Your task to perform on an android device: turn on data saver in the chrome app Image 0: 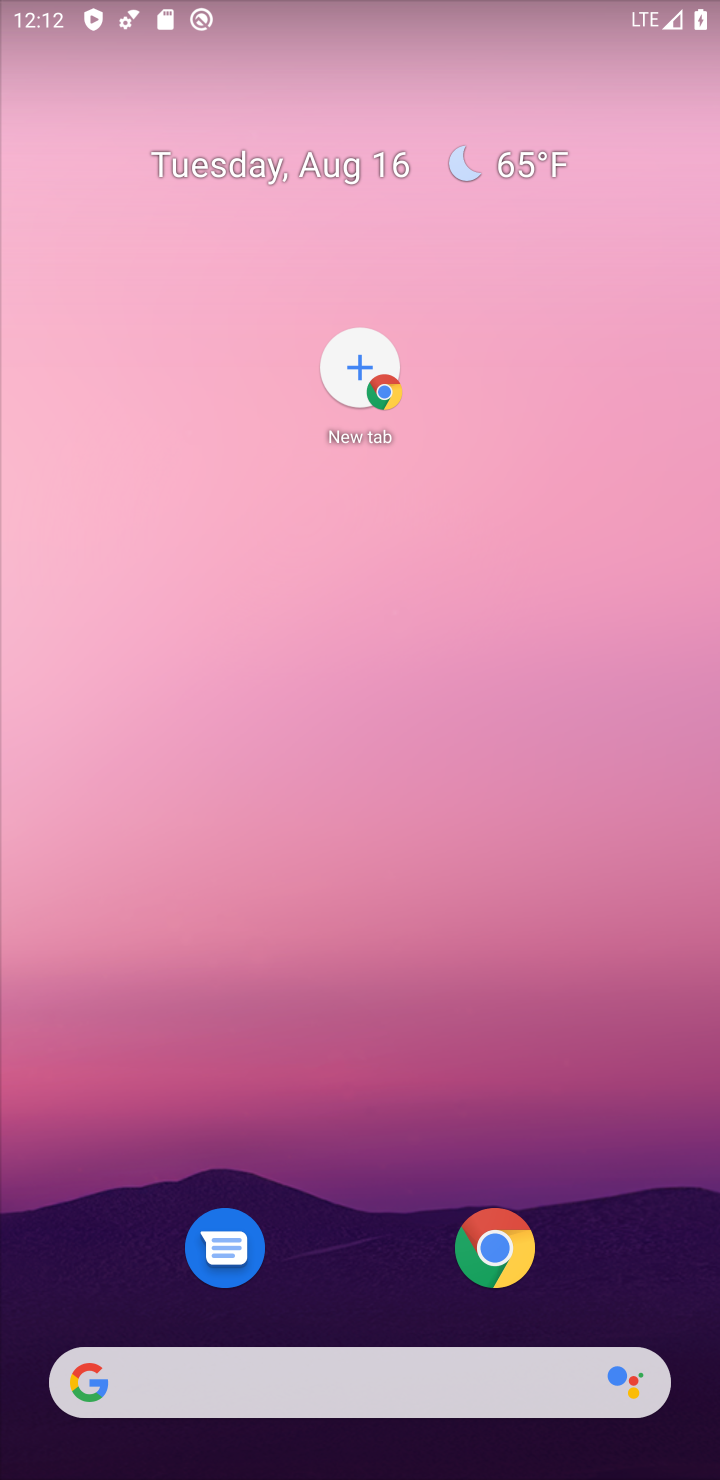
Step 0: click (511, 1261)
Your task to perform on an android device: turn on data saver in the chrome app Image 1: 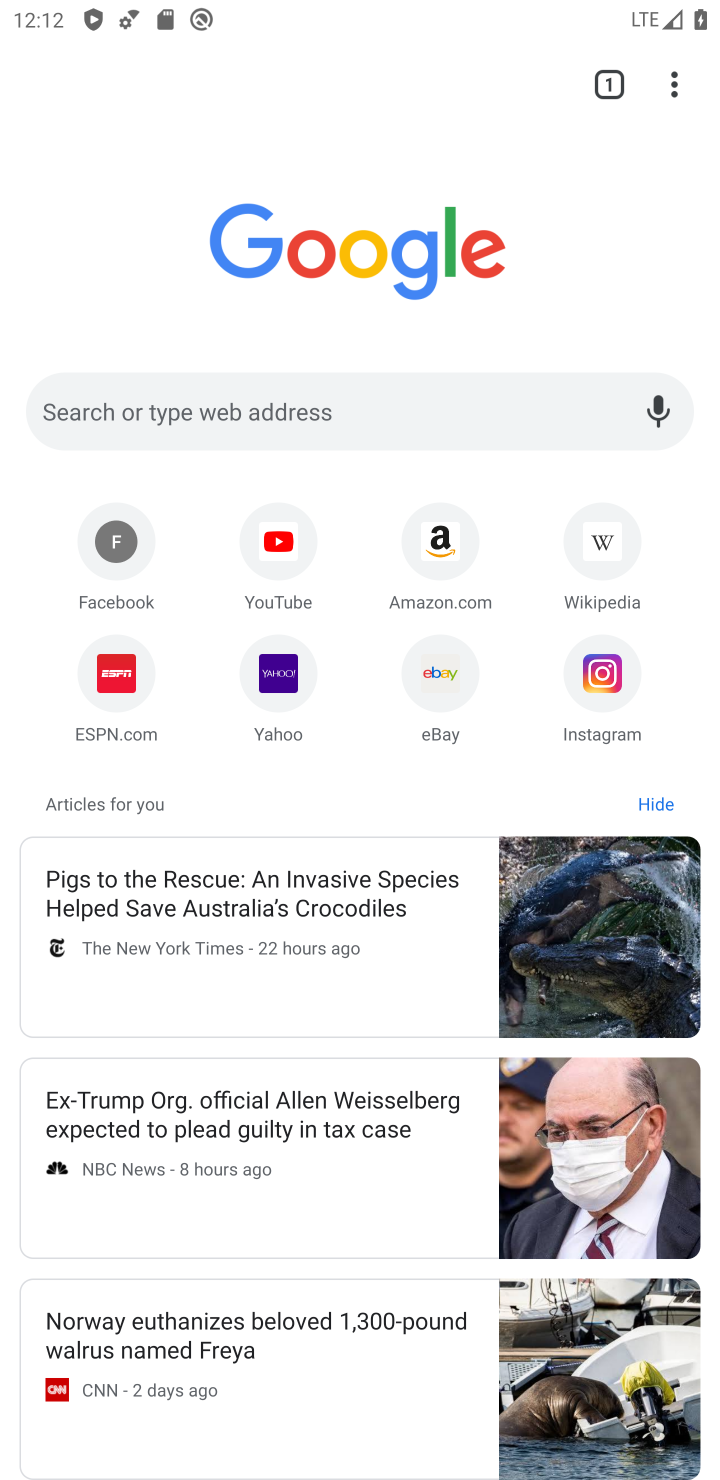
Step 1: click (677, 72)
Your task to perform on an android device: turn on data saver in the chrome app Image 2: 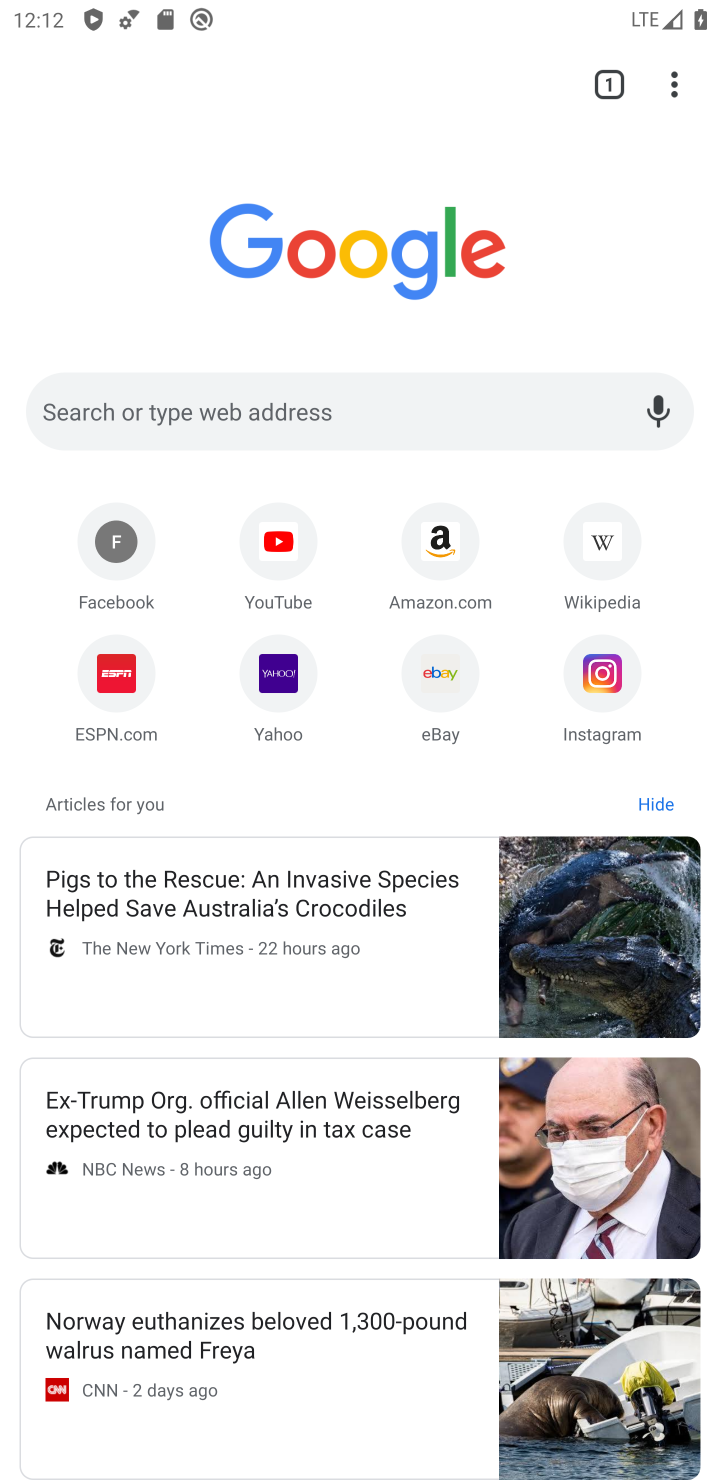
Step 2: click (677, 101)
Your task to perform on an android device: turn on data saver in the chrome app Image 3: 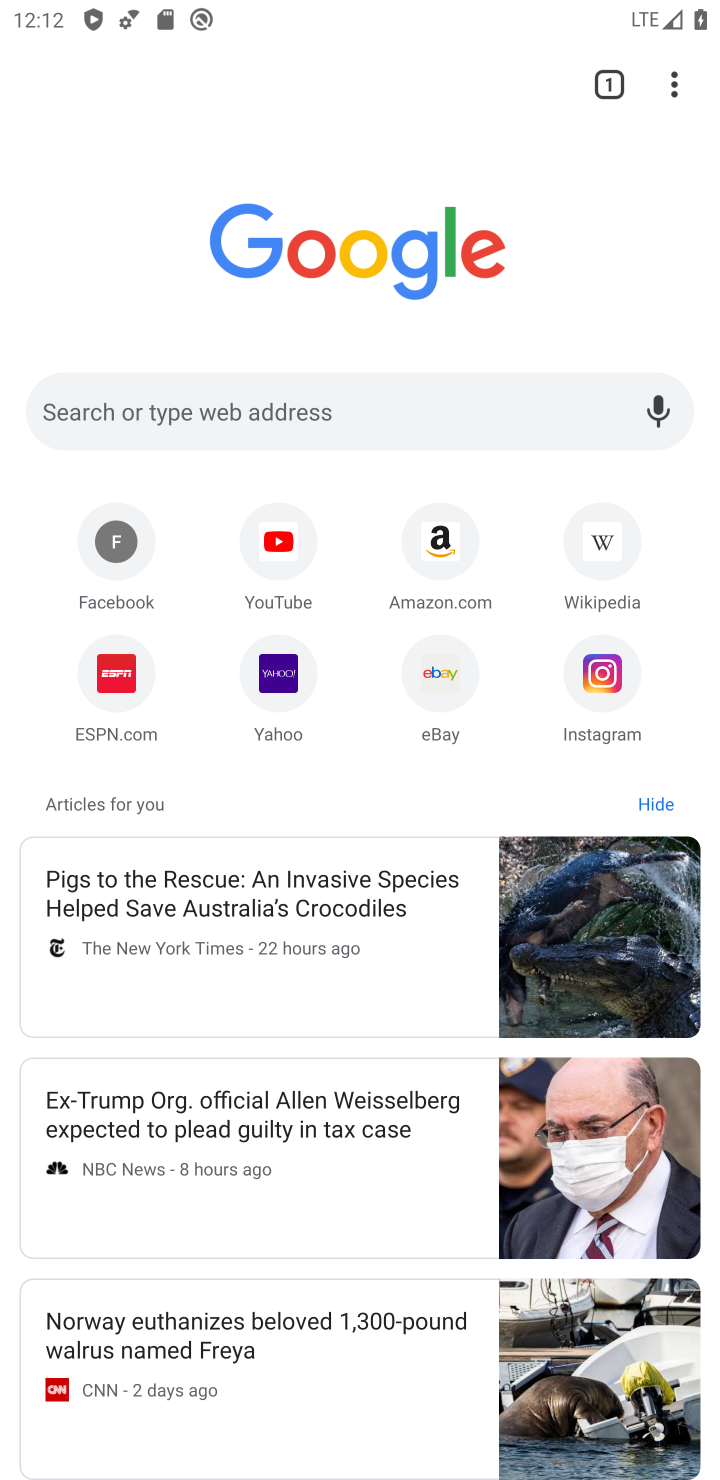
Step 3: click (677, 101)
Your task to perform on an android device: turn on data saver in the chrome app Image 4: 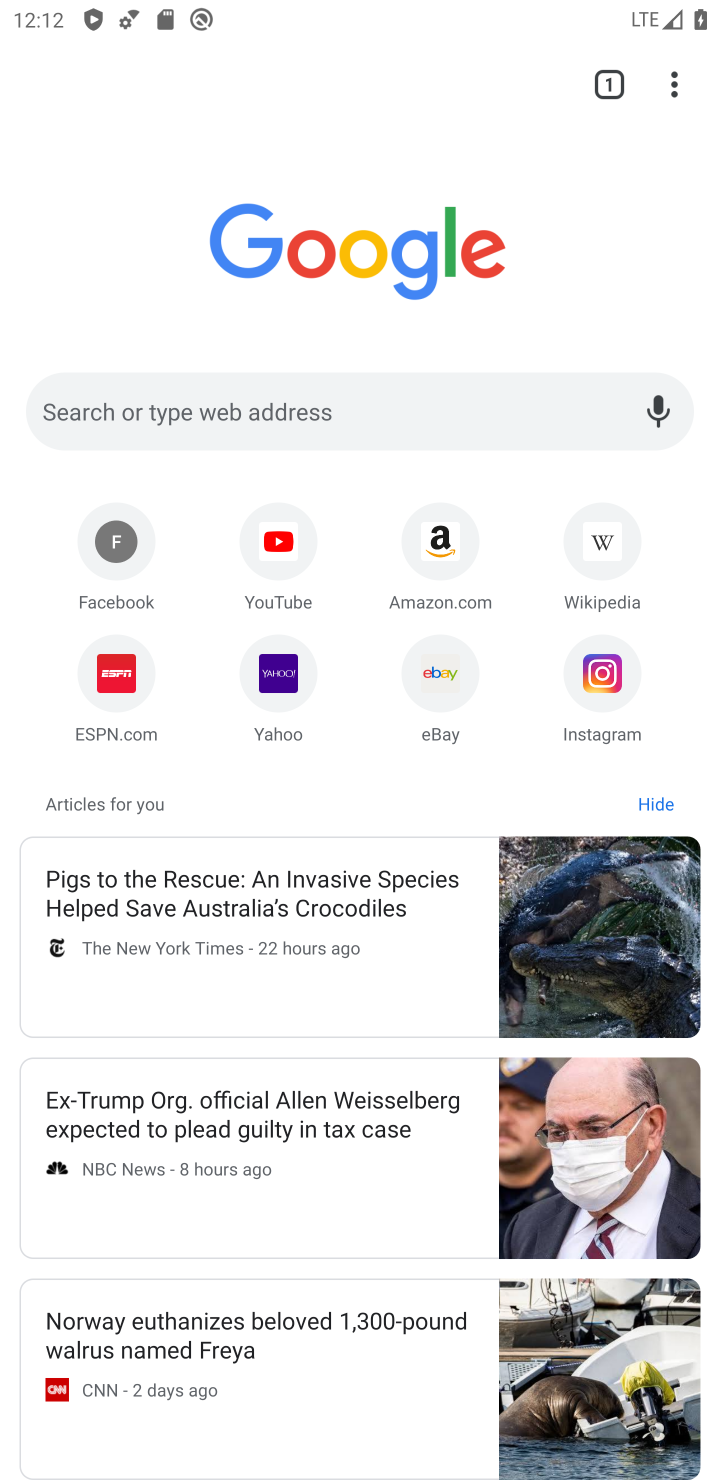
Step 4: click (677, 101)
Your task to perform on an android device: turn on data saver in the chrome app Image 5: 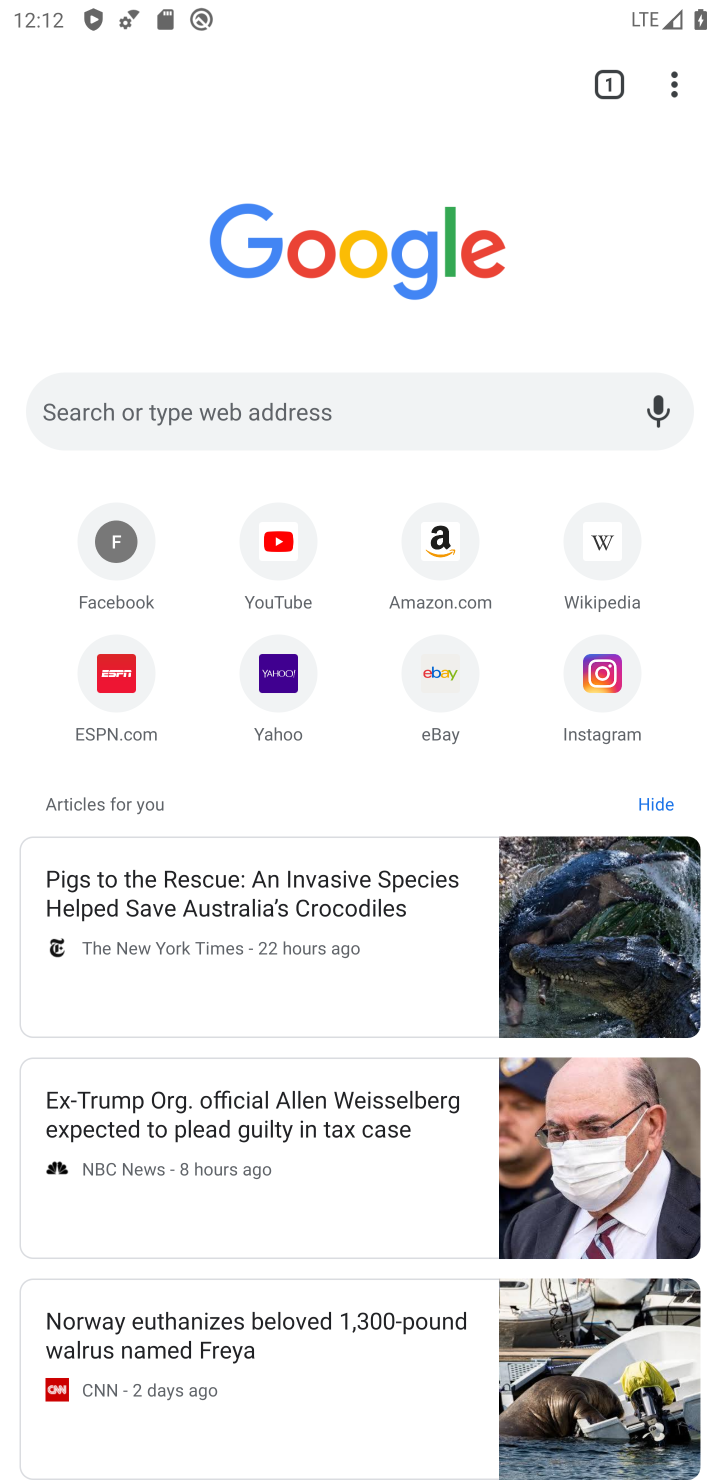
Step 5: click (677, 101)
Your task to perform on an android device: turn on data saver in the chrome app Image 6: 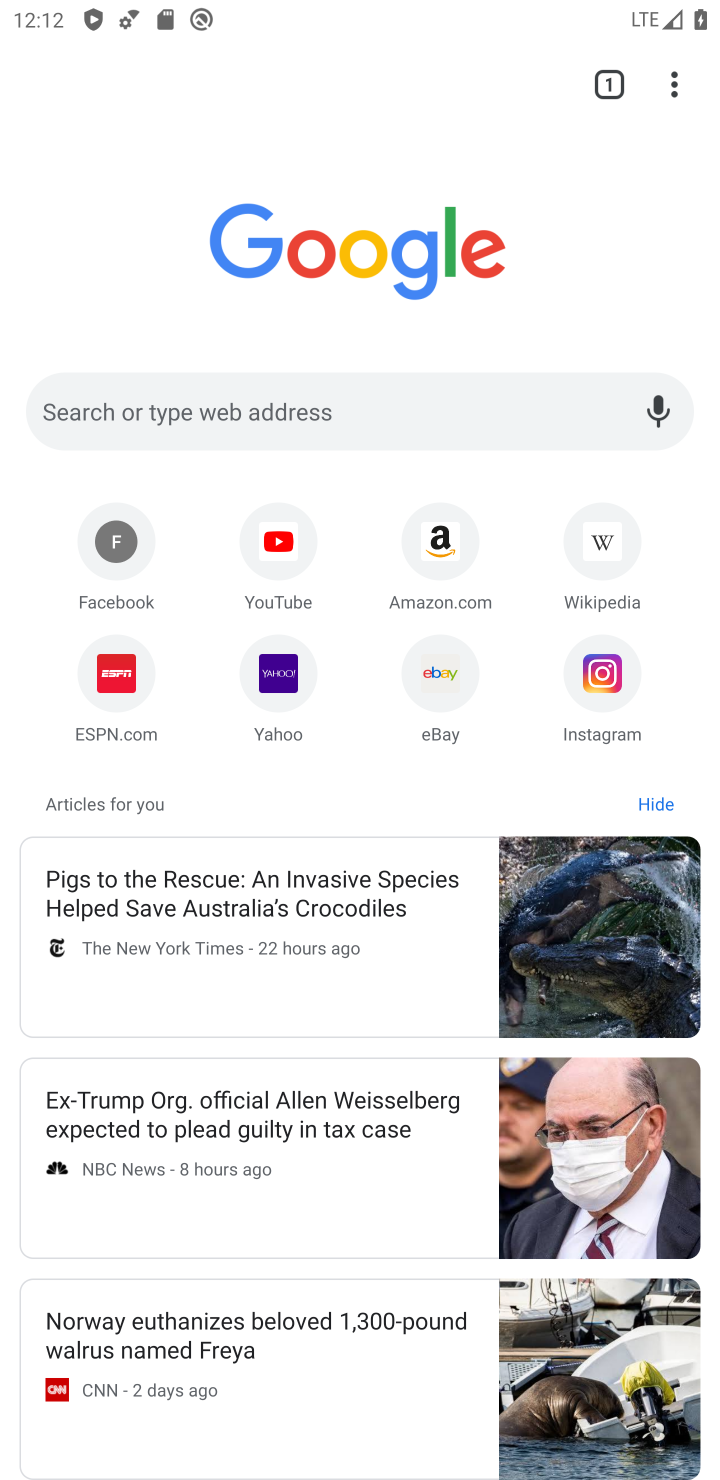
Step 6: click (677, 101)
Your task to perform on an android device: turn on data saver in the chrome app Image 7: 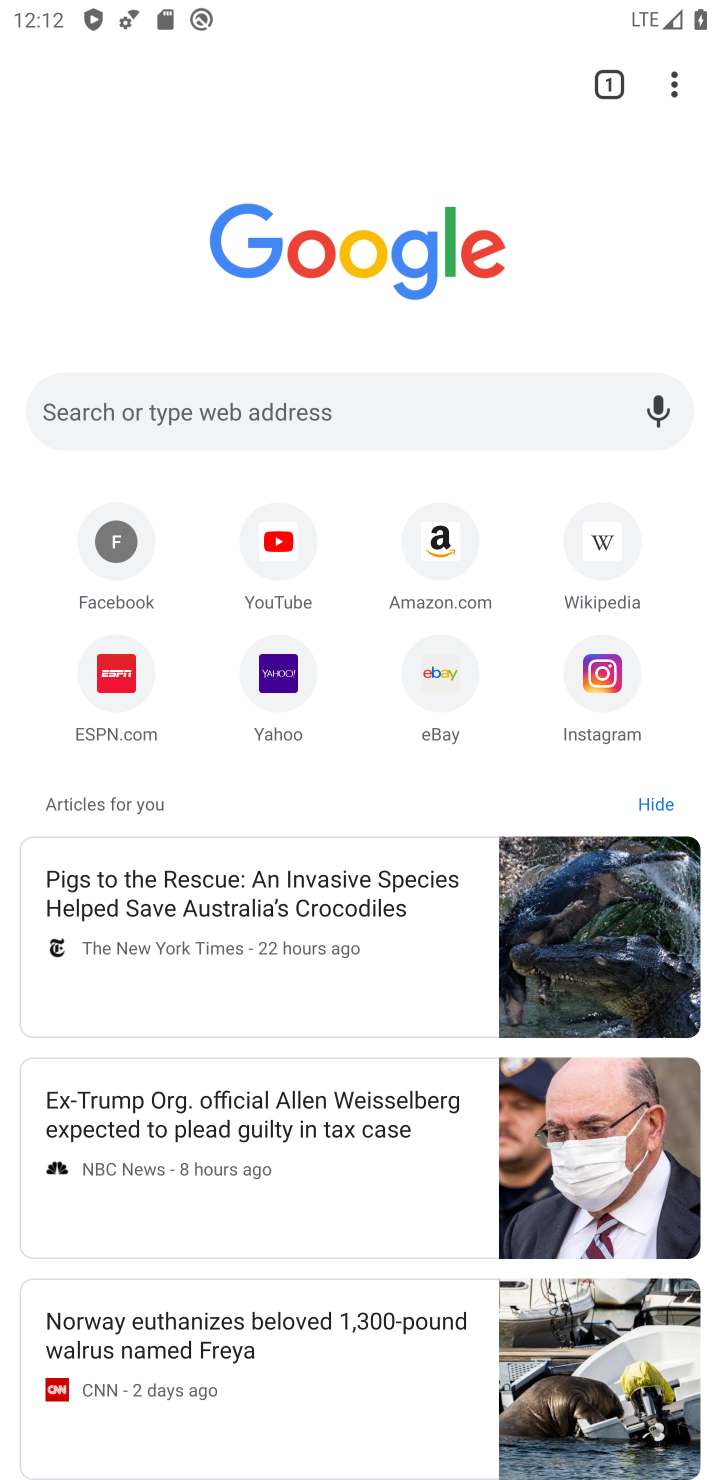
Step 7: click (677, 101)
Your task to perform on an android device: turn on data saver in the chrome app Image 8: 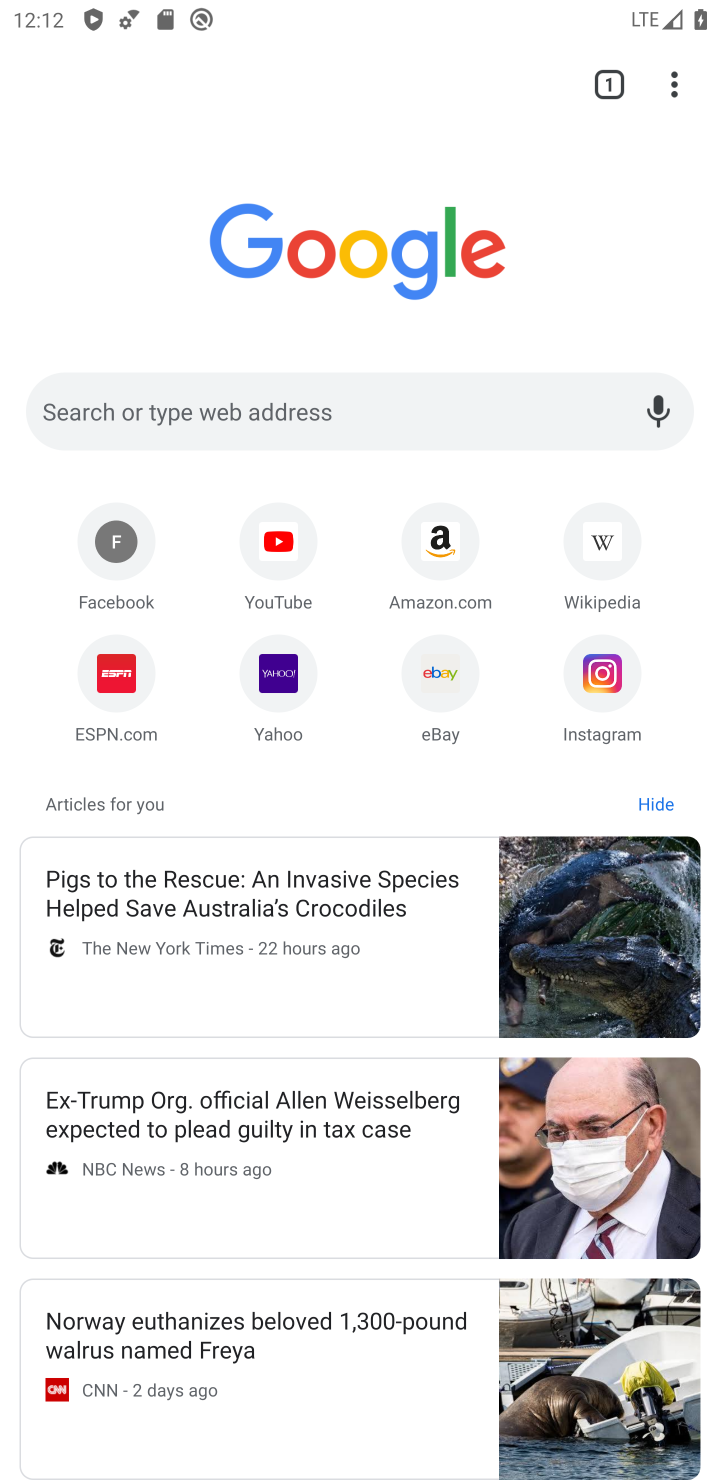
Step 8: click (677, 101)
Your task to perform on an android device: turn on data saver in the chrome app Image 9: 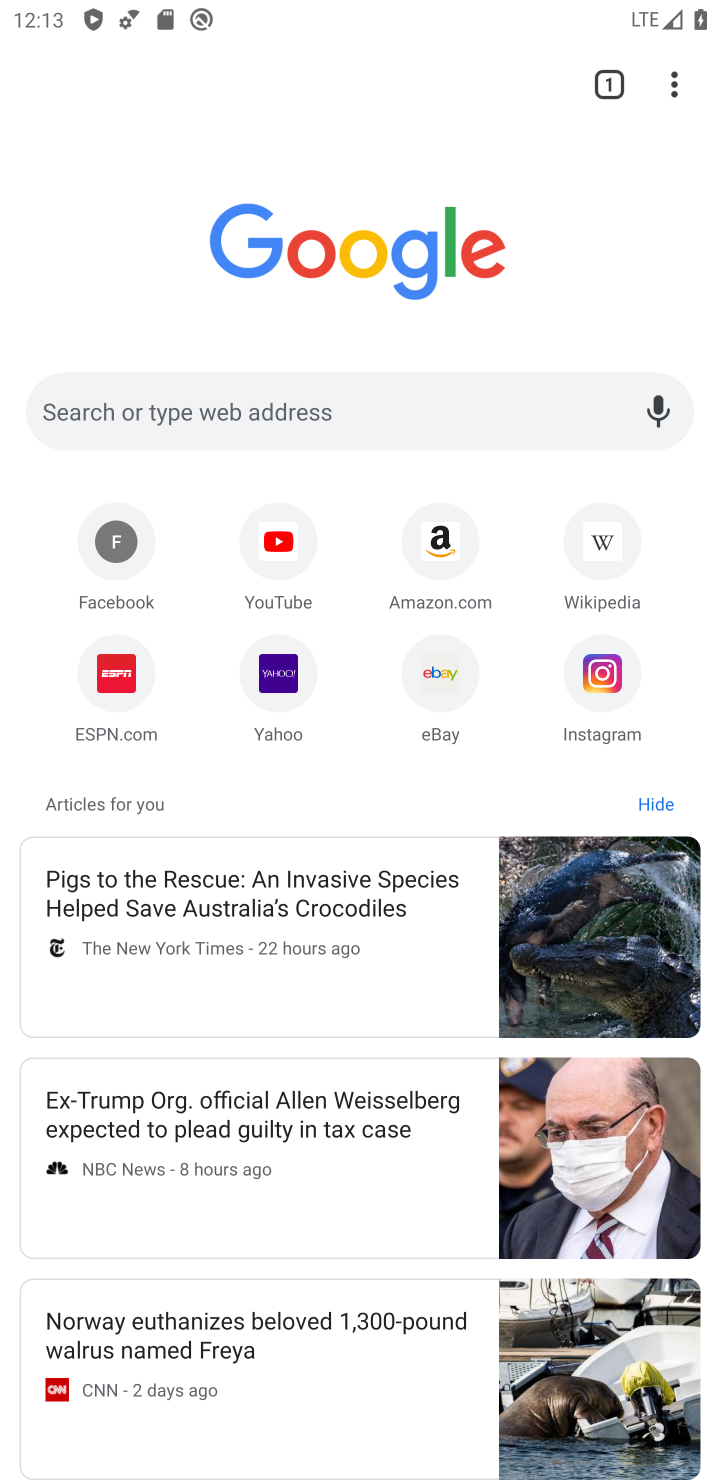
Step 9: click (677, 101)
Your task to perform on an android device: turn on data saver in the chrome app Image 10: 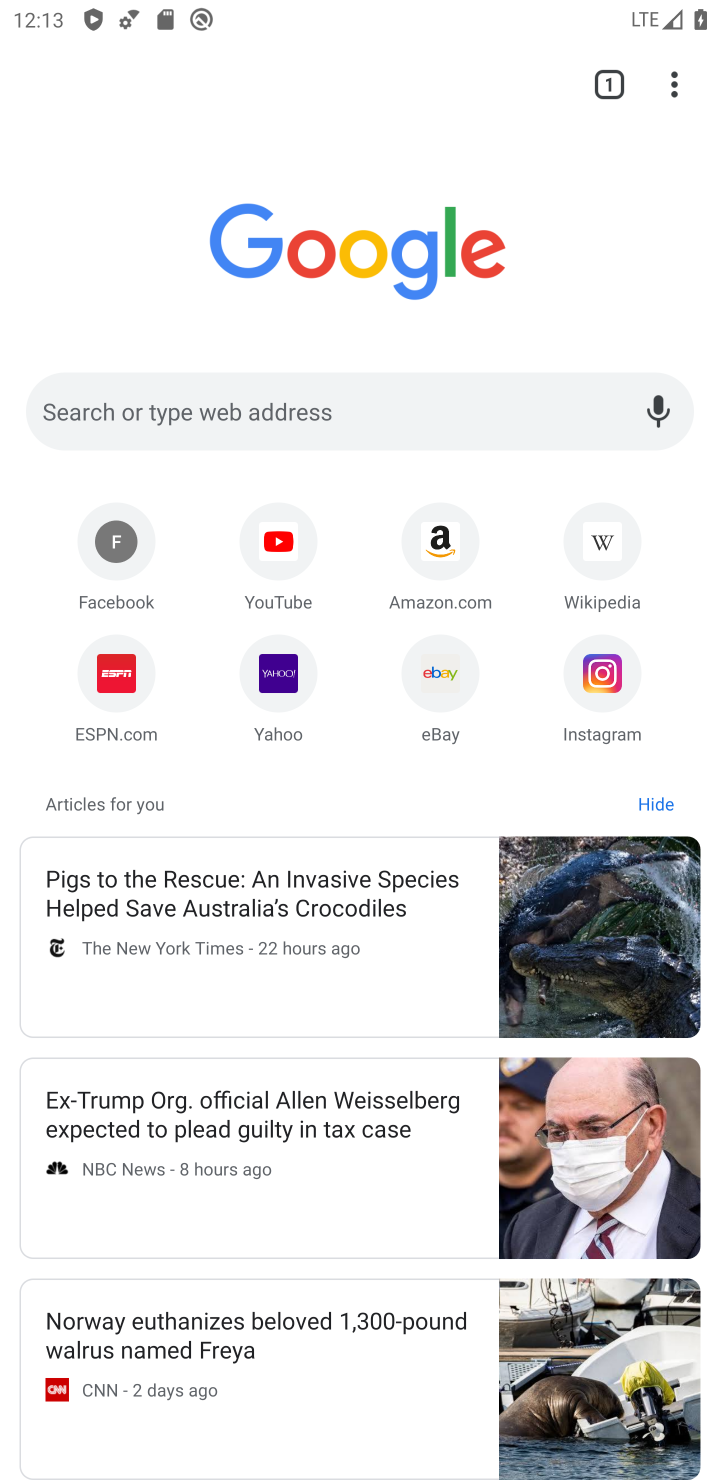
Step 10: task complete